Your task to perform on an android device: delete browsing data in the chrome app Image 0: 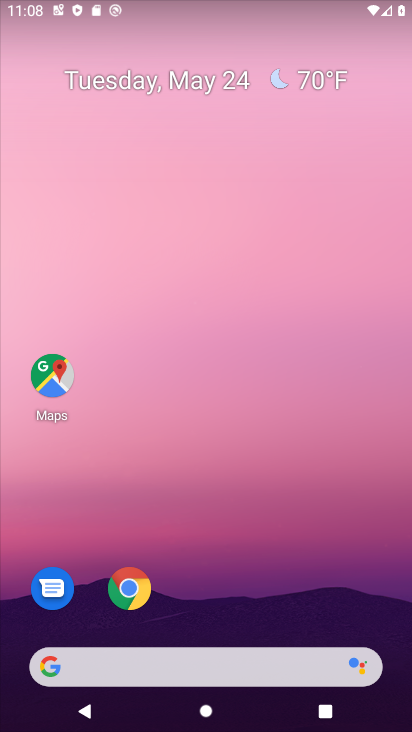
Step 0: press home button
Your task to perform on an android device: delete browsing data in the chrome app Image 1: 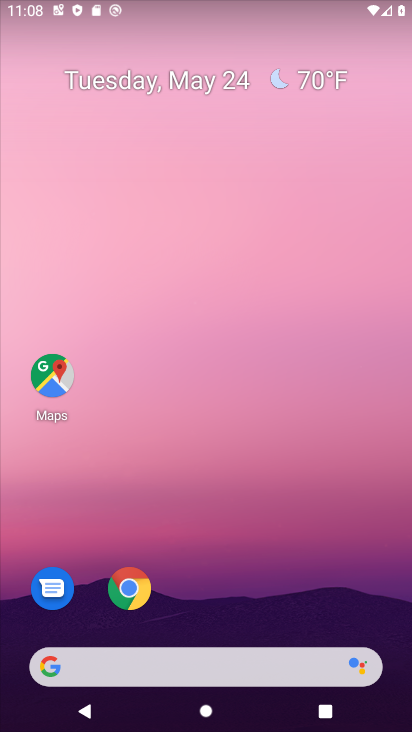
Step 1: click (125, 583)
Your task to perform on an android device: delete browsing data in the chrome app Image 2: 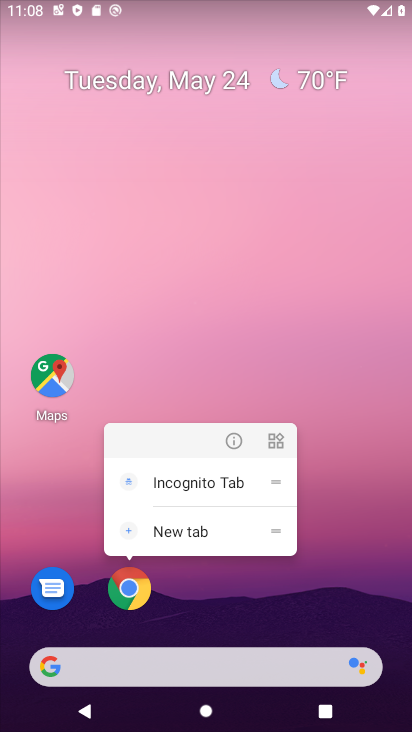
Step 2: click (216, 615)
Your task to perform on an android device: delete browsing data in the chrome app Image 3: 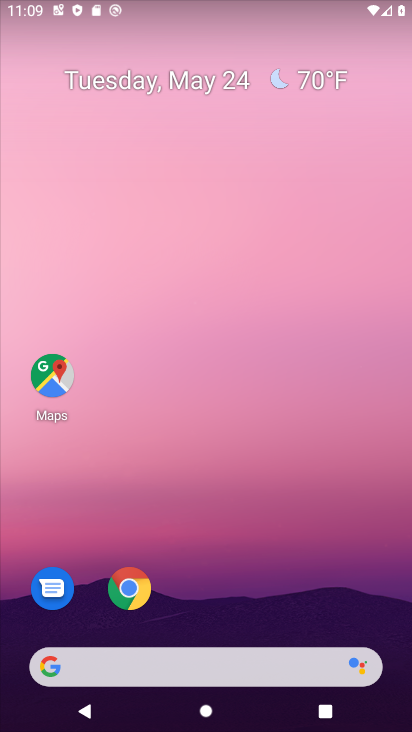
Step 3: click (129, 593)
Your task to perform on an android device: delete browsing data in the chrome app Image 4: 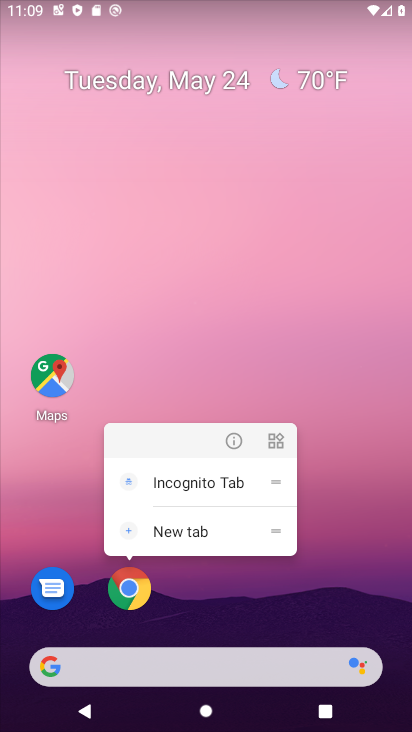
Step 4: click (131, 587)
Your task to perform on an android device: delete browsing data in the chrome app Image 5: 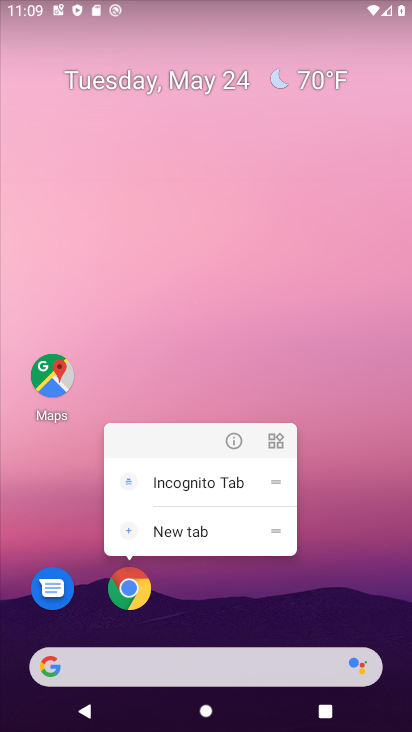
Step 5: click (134, 585)
Your task to perform on an android device: delete browsing data in the chrome app Image 6: 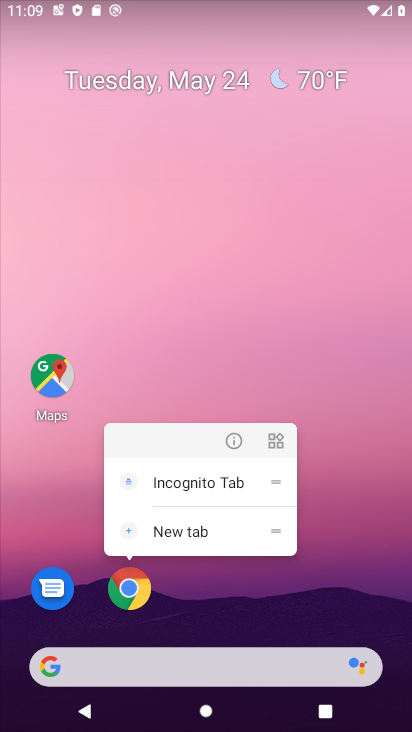
Step 6: drag from (227, 618) to (254, 13)
Your task to perform on an android device: delete browsing data in the chrome app Image 7: 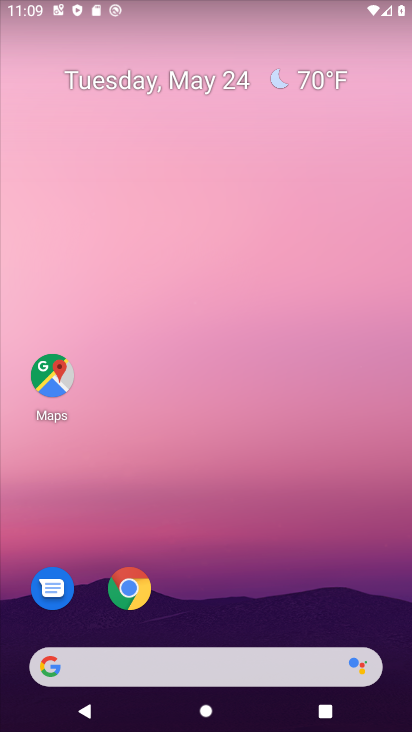
Step 7: drag from (208, 638) to (220, 50)
Your task to perform on an android device: delete browsing data in the chrome app Image 8: 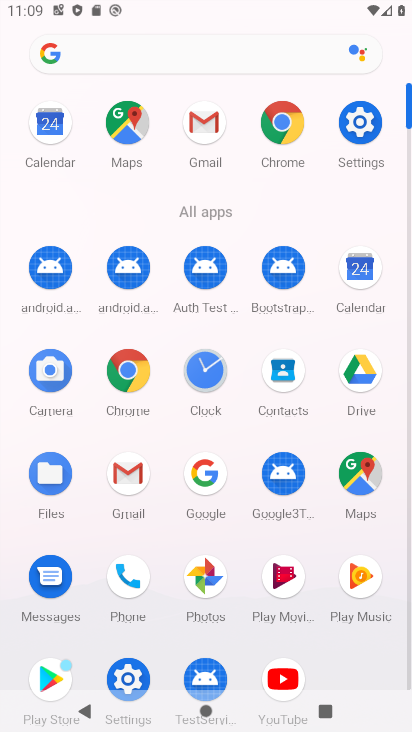
Step 8: click (280, 113)
Your task to perform on an android device: delete browsing data in the chrome app Image 9: 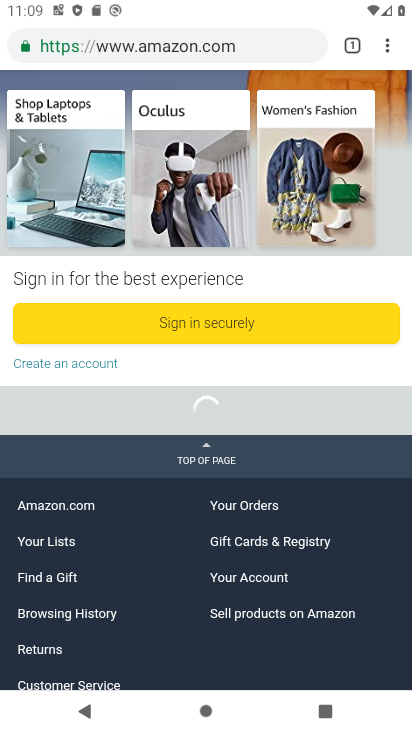
Step 9: click (383, 41)
Your task to perform on an android device: delete browsing data in the chrome app Image 10: 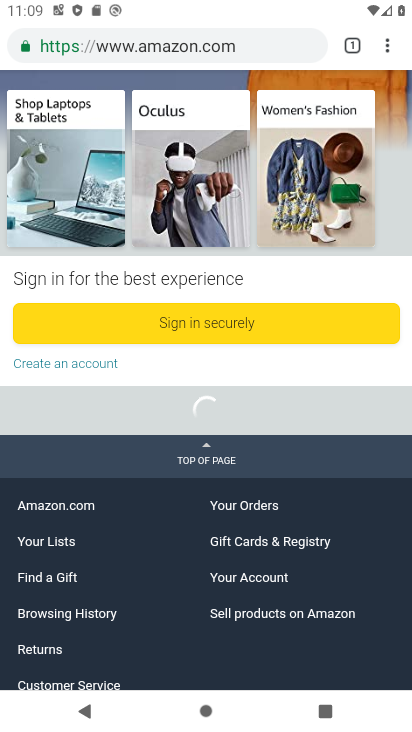
Step 10: click (384, 41)
Your task to perform on an android device: delete browsing data in the chrome app Image 11: 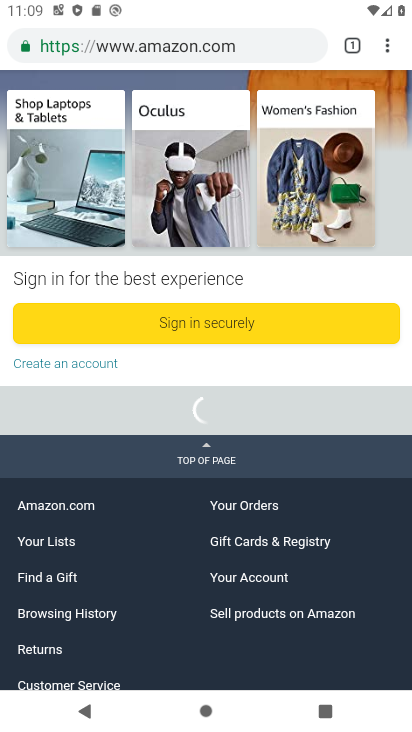
Step 11: click (389, 46)
Your task to perform on an android device: delete browsing data in the chrome app Image 12: 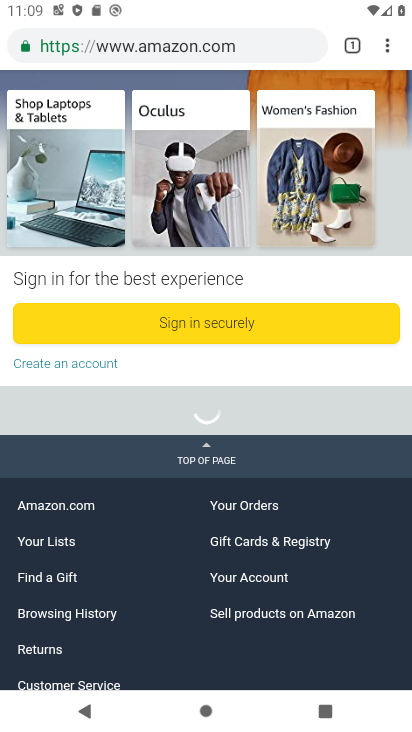
Step 12: click (389, 46)
Your task to perform on an android device: delete browsing data in the chrome app Image 13: 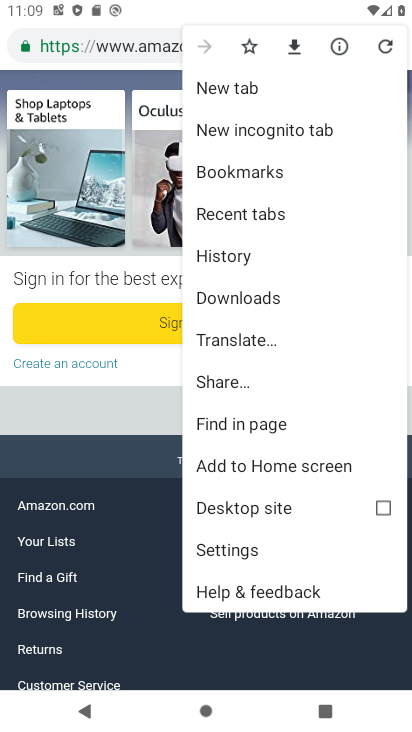
Step 13: click (257, 251)
Your task to perform on an android device: delete browsing data in the chrome app Image 14: 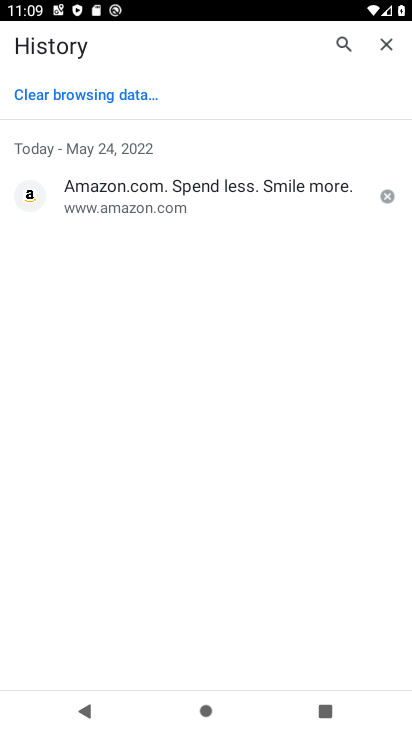
Step 14: click (93, 97)
Your task to perform on an android device: delete browsing data in the chrome app Image 15: 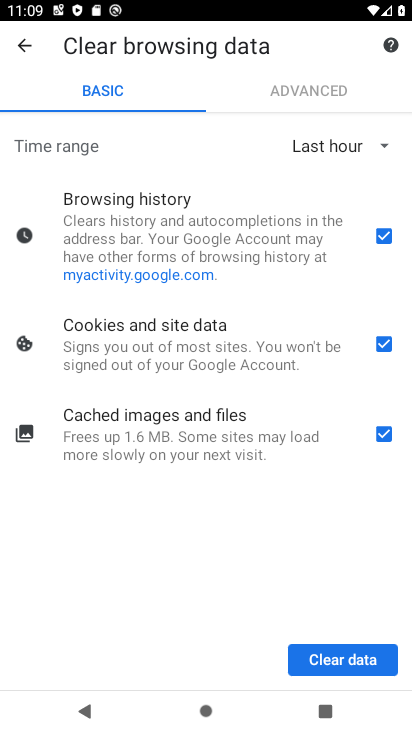
Step 15: click (361, 142)
Your task to perform on an android device: delete browsing data in the chrome app Image 16: 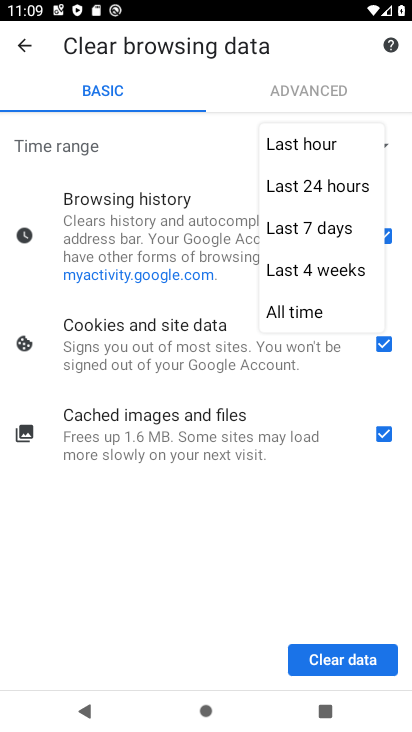
Step 16: click (316, 317)
Your task to perform on an android device: delete browsing data in the chrome app Image 17: 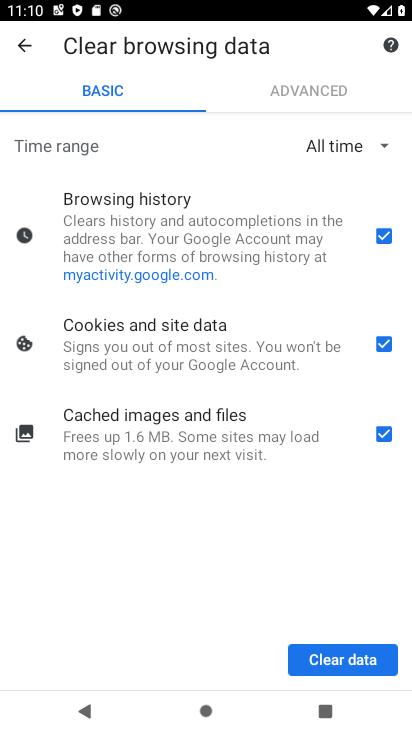
Step 17: click (343, 659)
Your task to perform on an android device: delete browsing data in the chrome app Image 18: 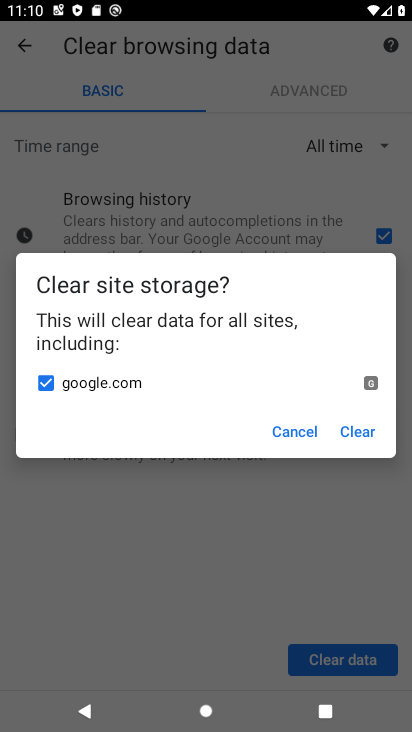
Step 18: click (359, 426)
Your task to perform on an android device: delete browsing data in the chrome app Image 19: 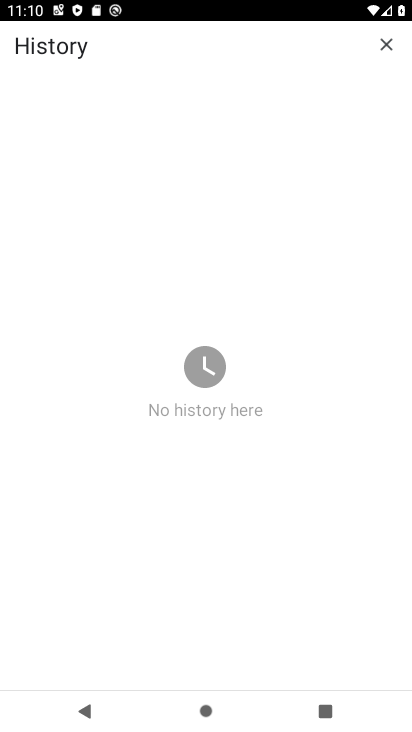
Step 19: task complete